Your task to perform on an android device: open app "Spotify" (install if not already installed) Image 0: 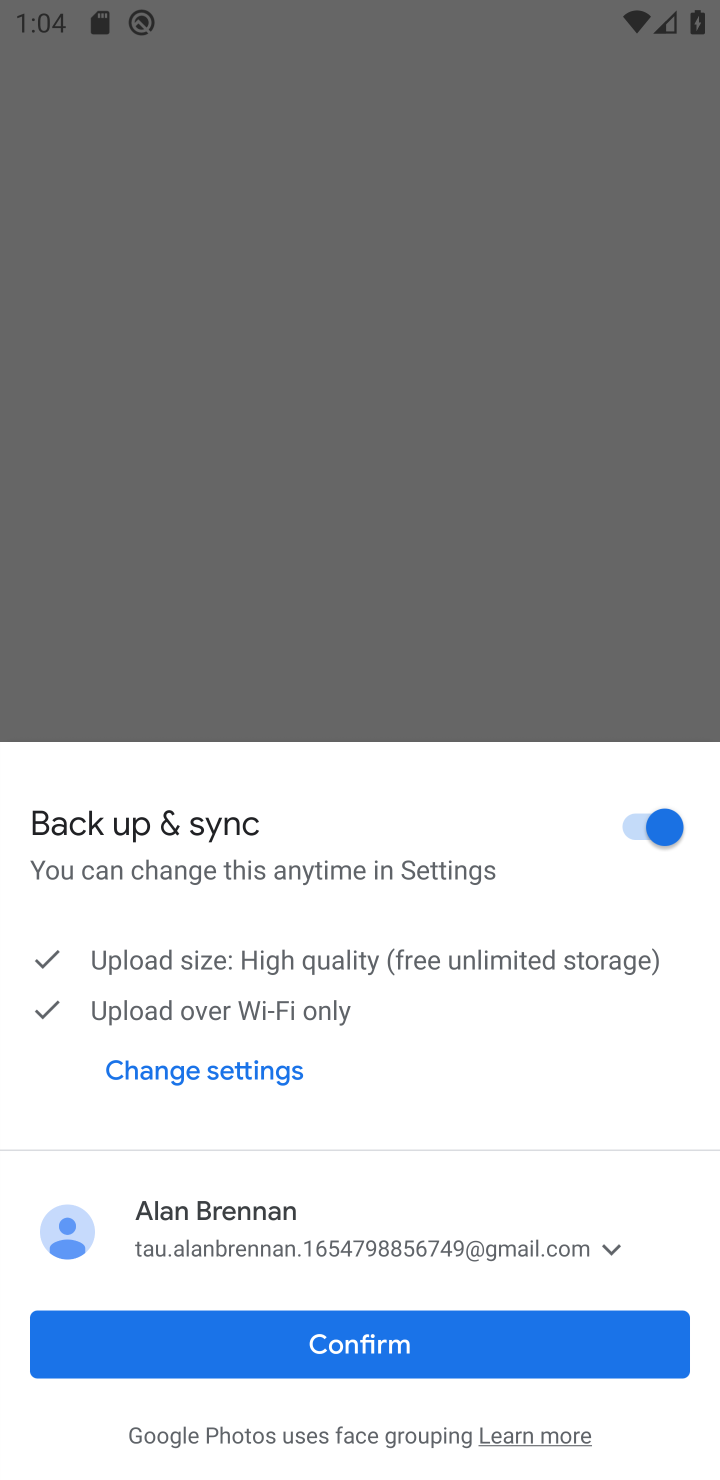
Step 0: press home button
Your task to perform on an android device: open app "Spotify" (install if not already installed) Image 1: 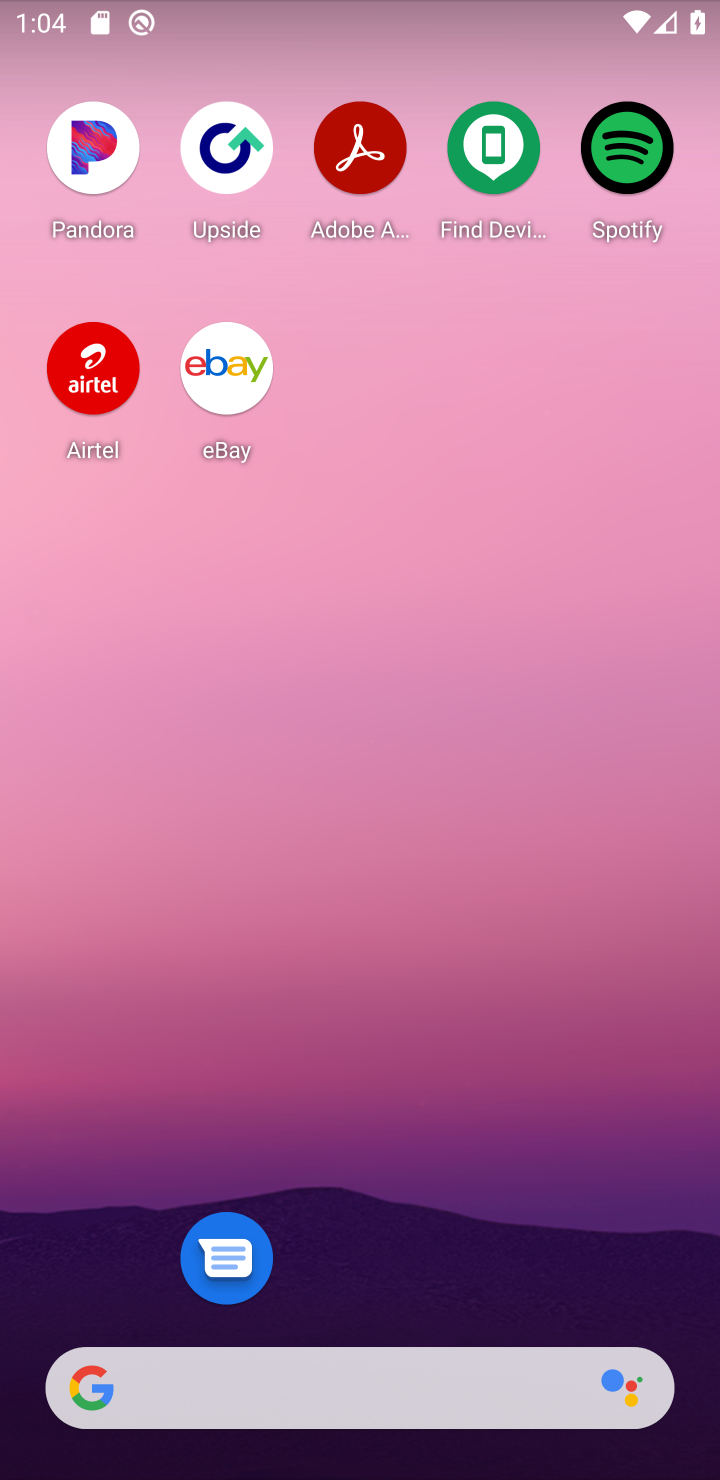
Step 1: drag from (268, 1328) to (473, 265)
Your task to perform on an android device: open app "Spotify" (install if not already installed) Image 2: 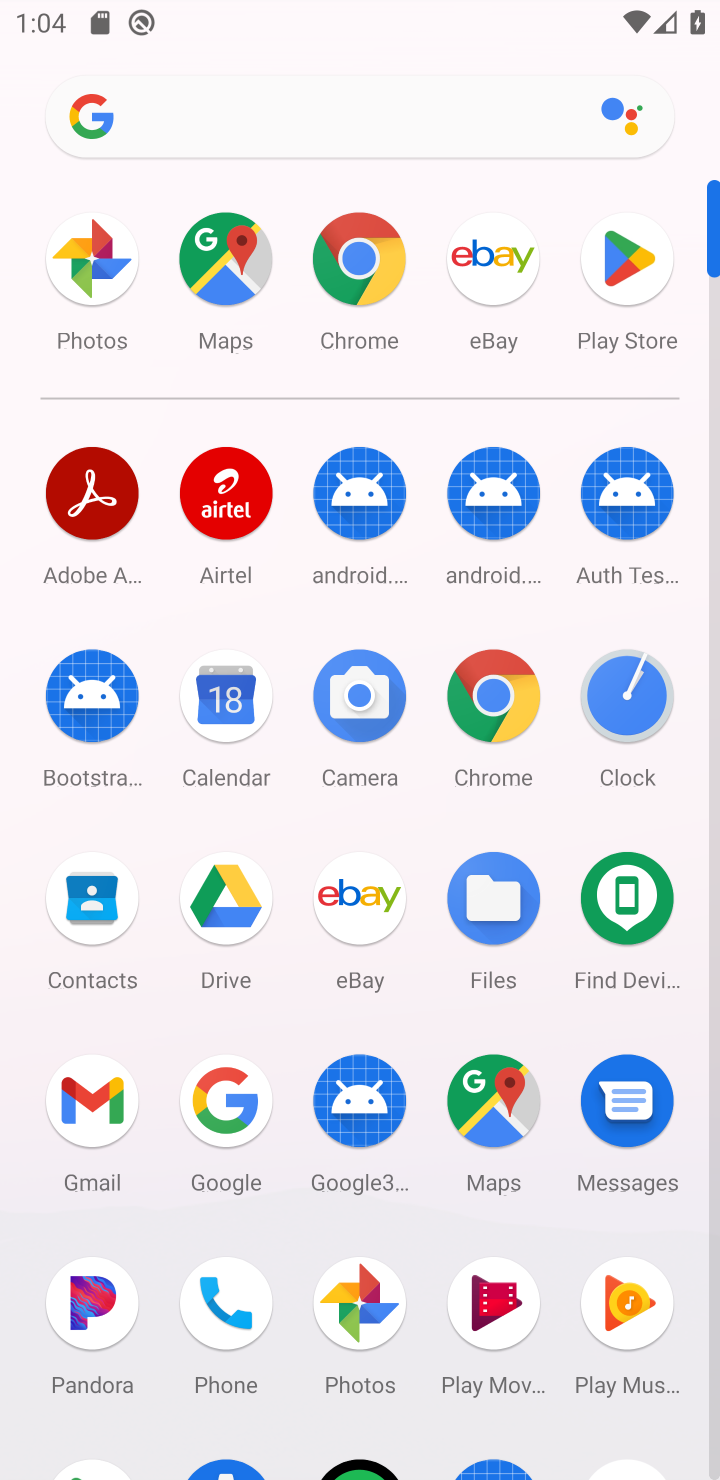
Step 2: click (636, 253)
Your task to perform on an android device: open app "Spotify" (install if not already installed) Image 3: 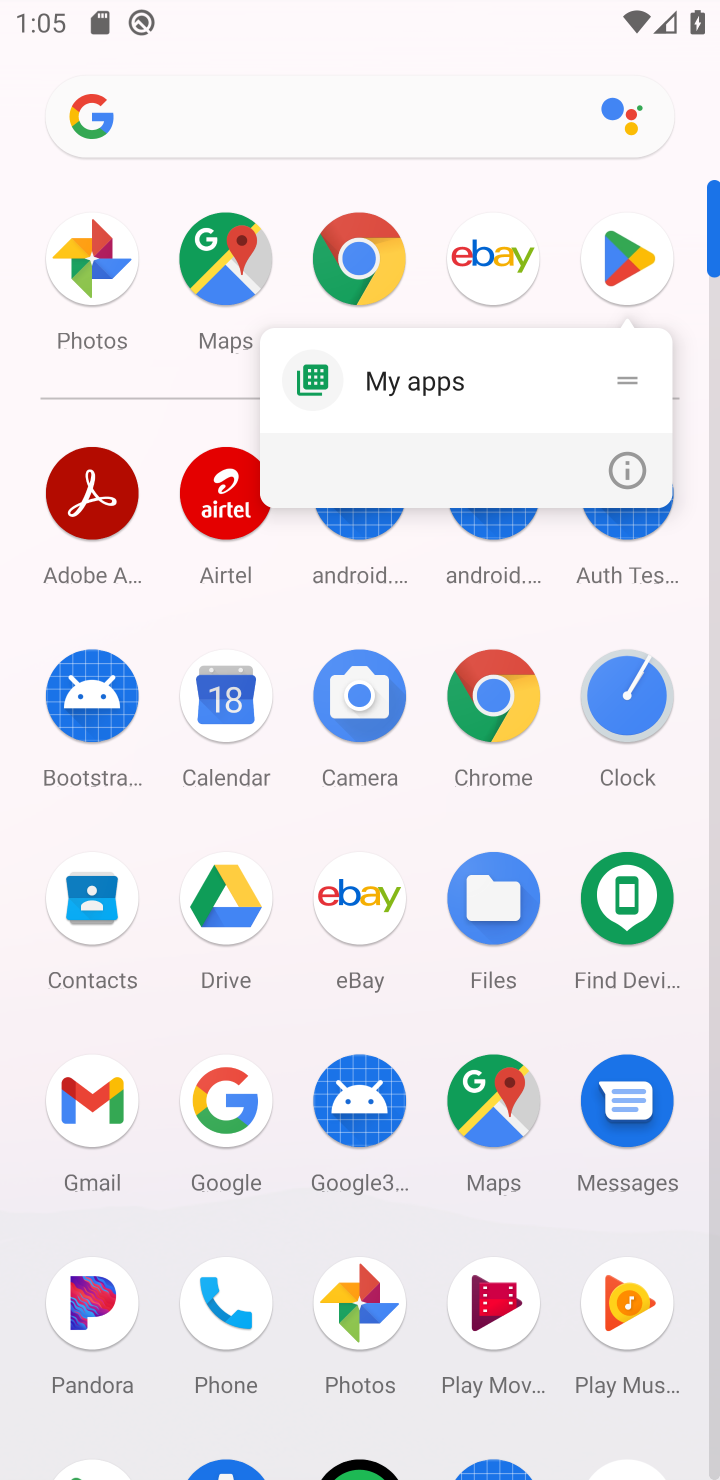
Step 3: click (626, 257)
Your task to perform on an android device: open app "Spotify" (install if not already installed) Image 4: 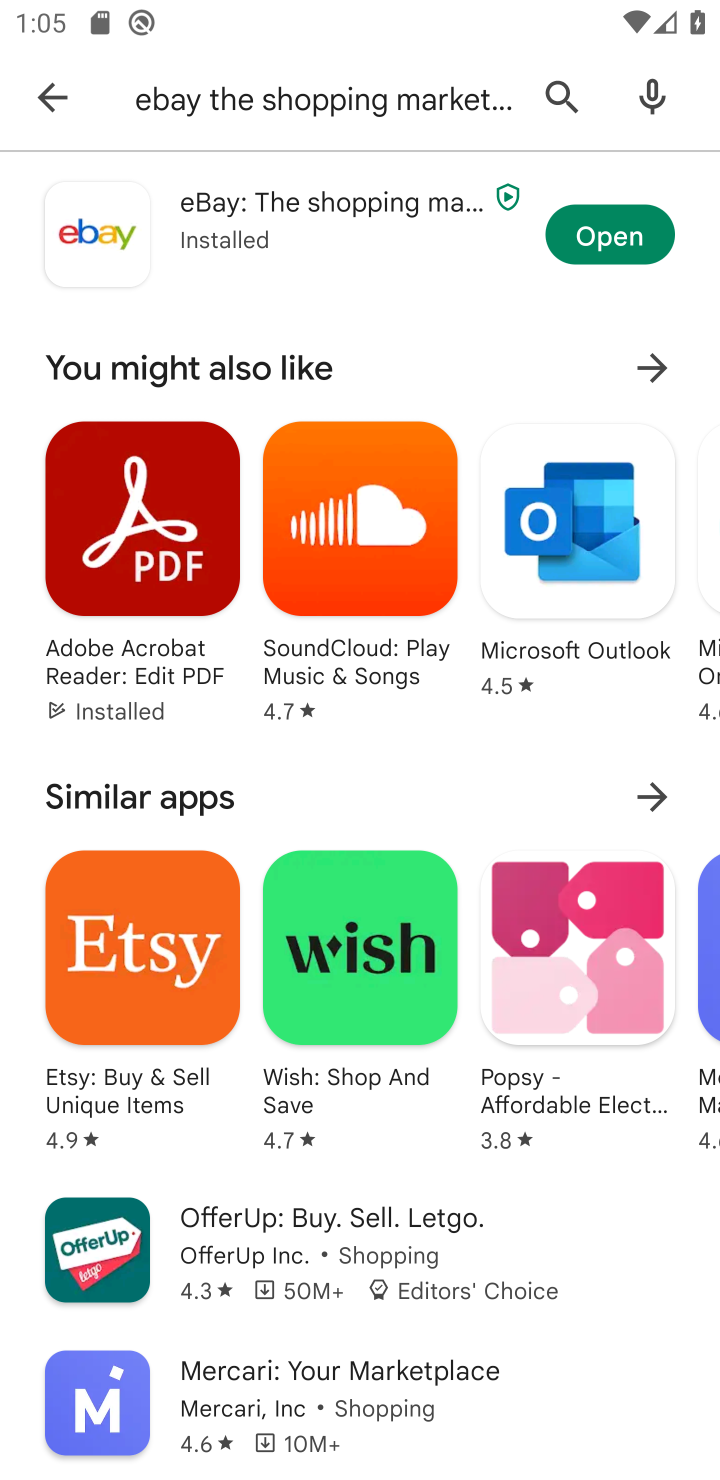
Step 4: click (85, 69)
Your task to perform on an android device: open app "Spotify" (install if not already installed) Image 5: 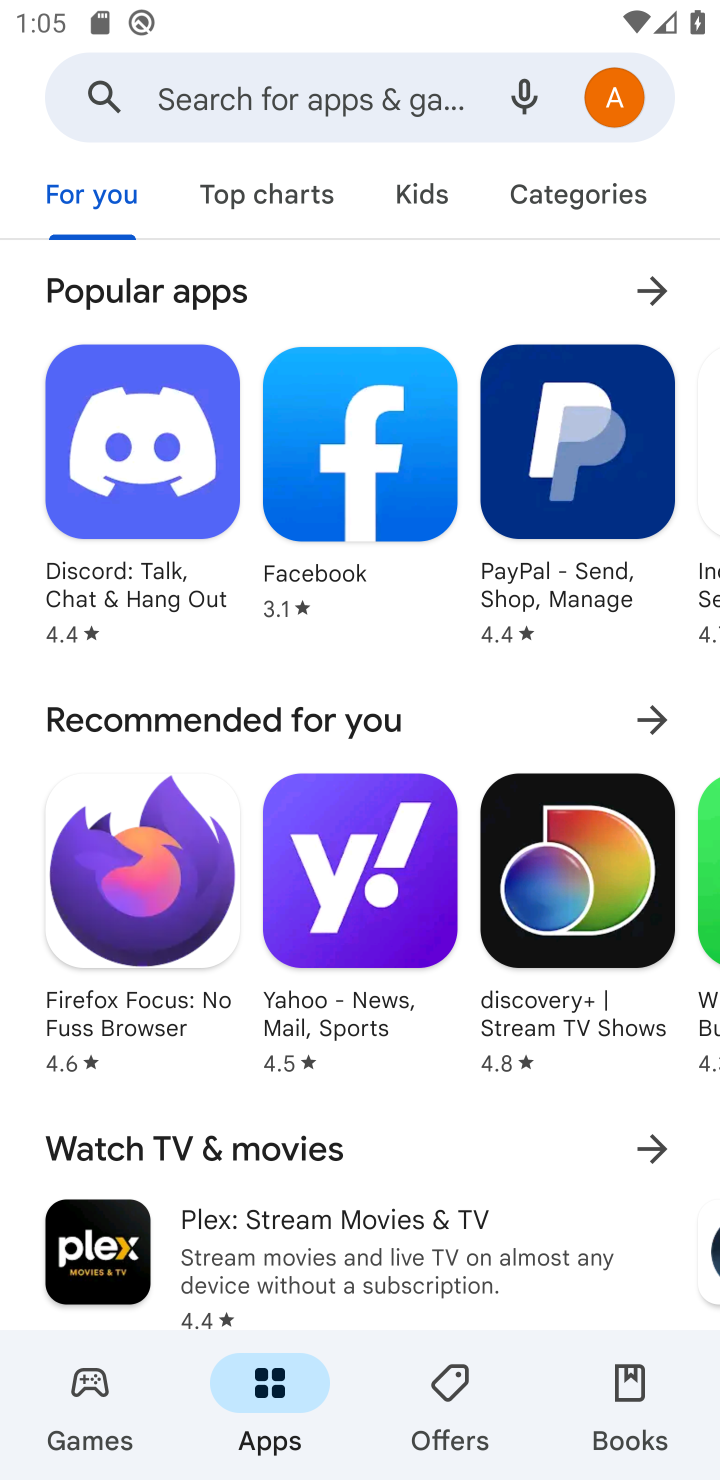
Step 5: click (394, 78)
Your task to perform on an android device: open app "Spotify" (install if not already installed) Image 6: 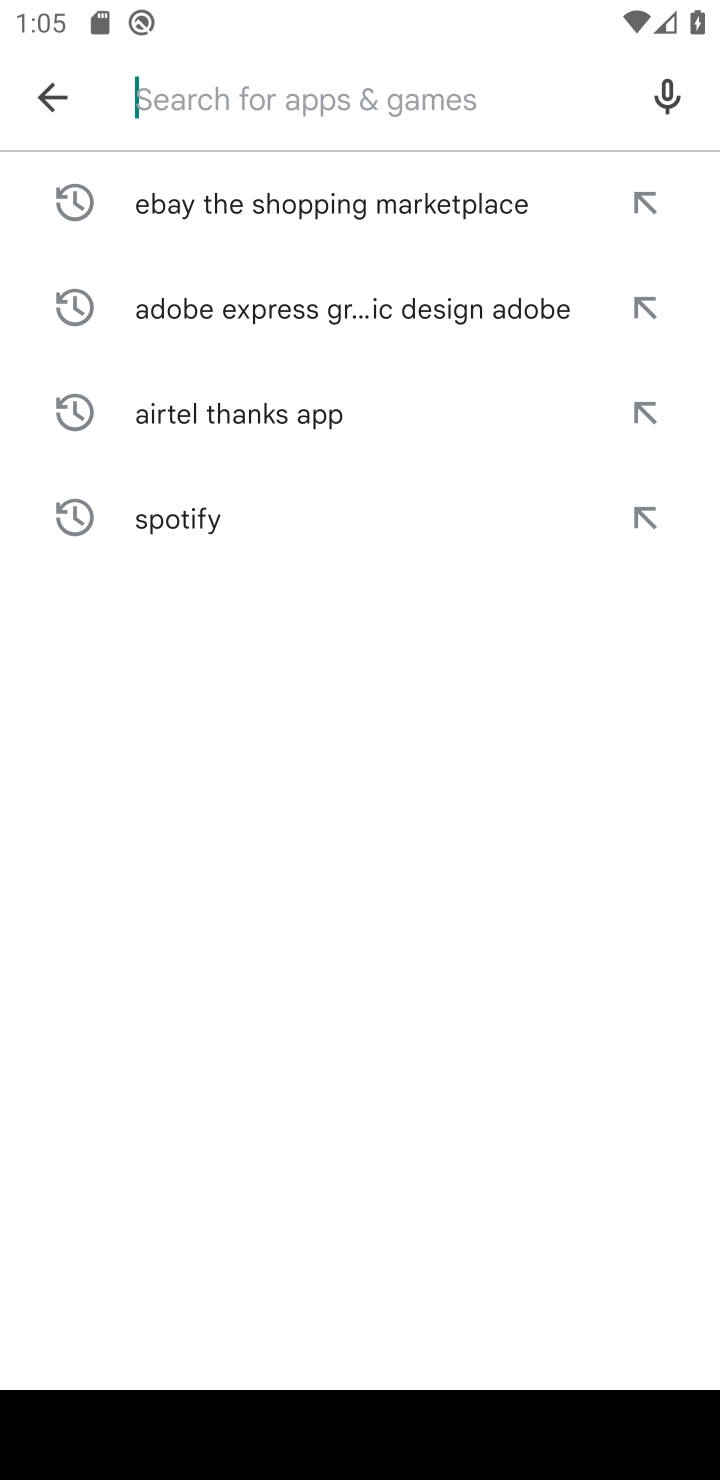
Step 6: click (214, 515)
Your task to perform on an android device: open app "Spotify" (install if not already installed) Image 7: 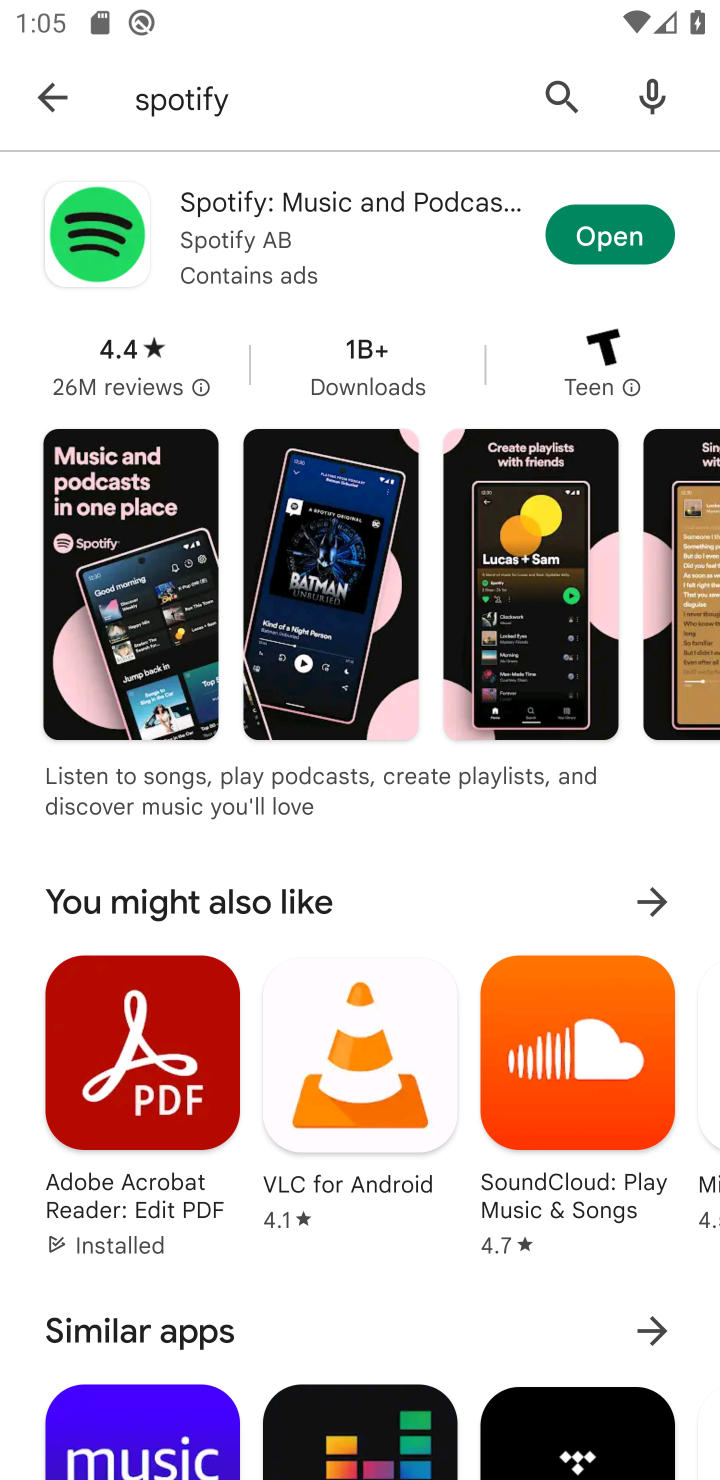
Step 7: click (608, 235)
Your task to perform on an android device: open app "Spotify" (install if not already installed) Image 8: 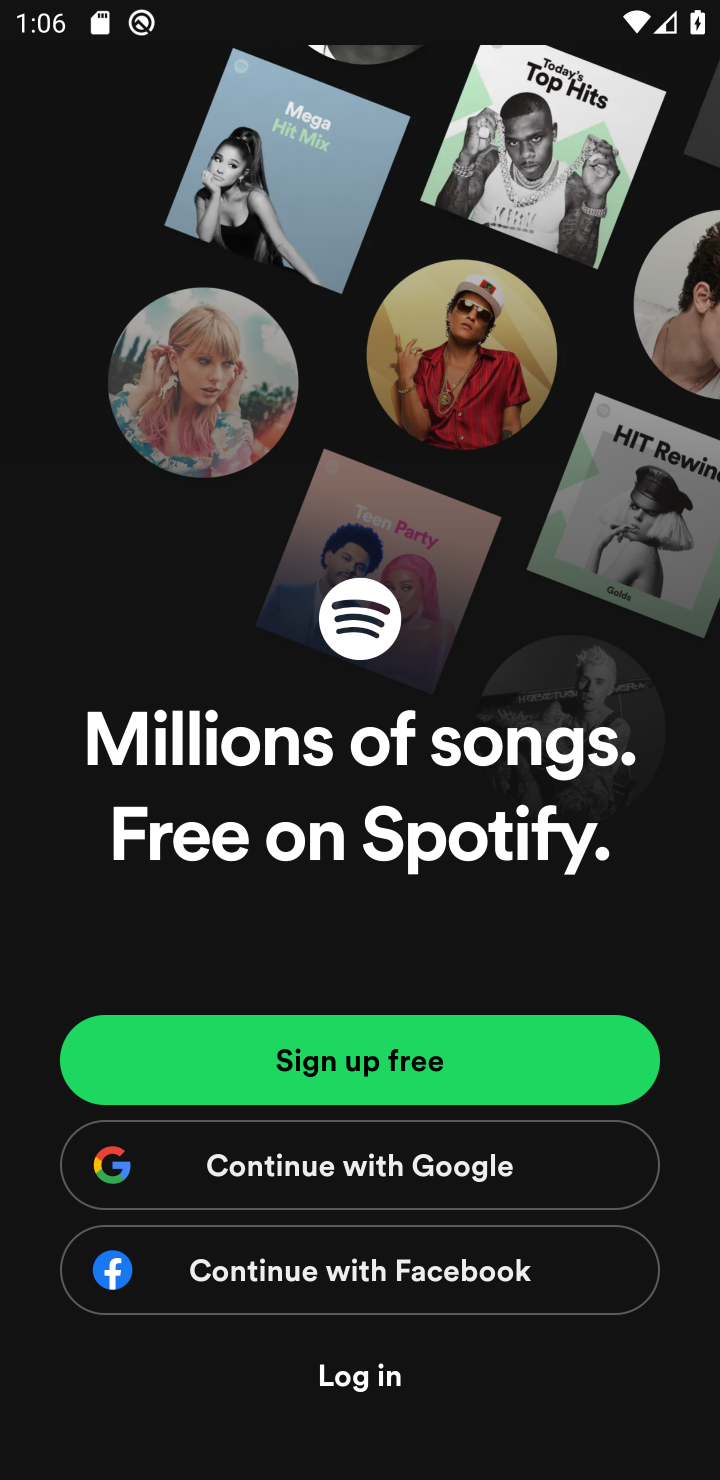
Step 8: task complete